Your task to perform on an android device: turn off improve location accuracy Image 0: 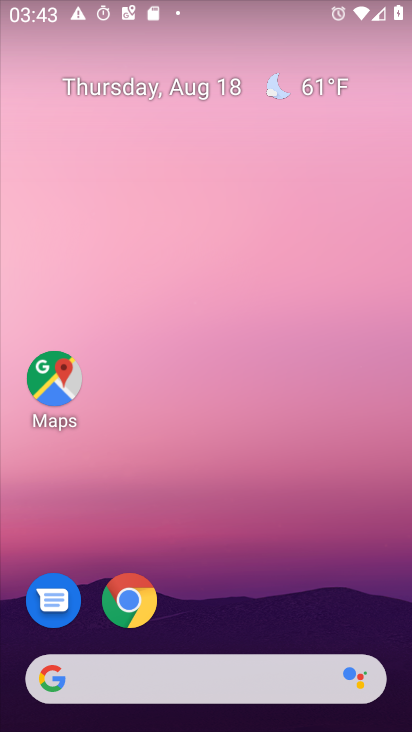
Step 0: press home button
Your task to perform on an android device: turn off improve location accuracy Image 1: 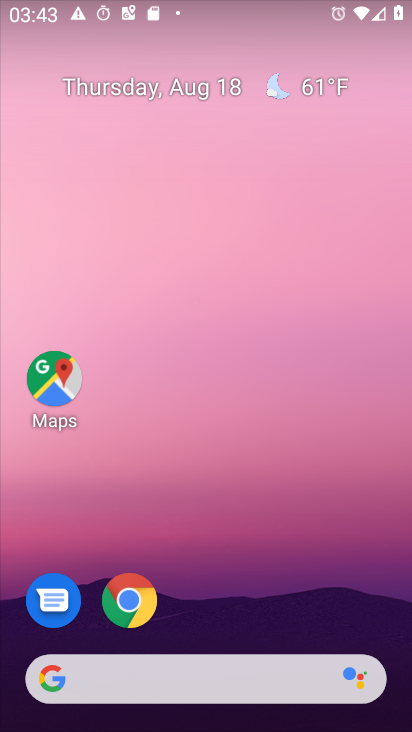
Step 1: click (361, 287)
Your task to perform on an android device: turn off improve location accuracy Image 2: 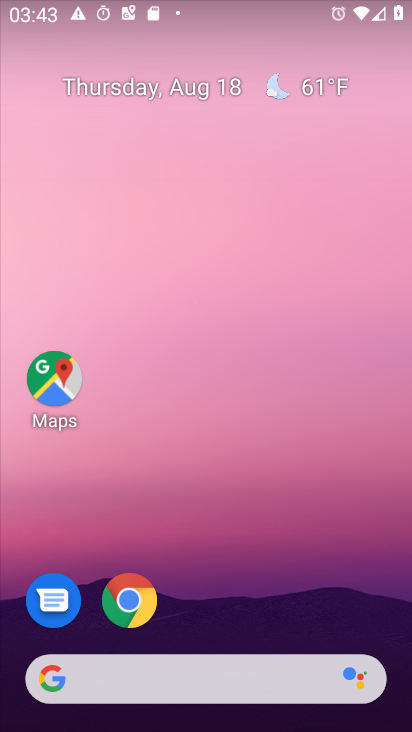
Step 2: drag from (212, 614) to (103, 2)
Your task to perform on an android device: turn off improve location accuracy Image 3: 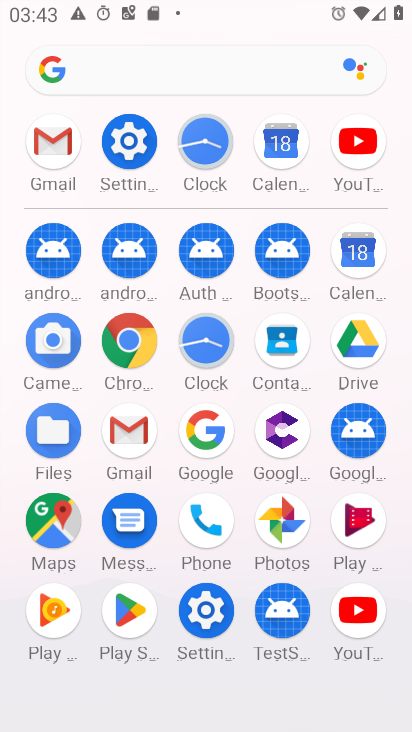
Step 3: click (128, 175)
Your task to perform on an android device: turn off improve location accuracy Image 4: 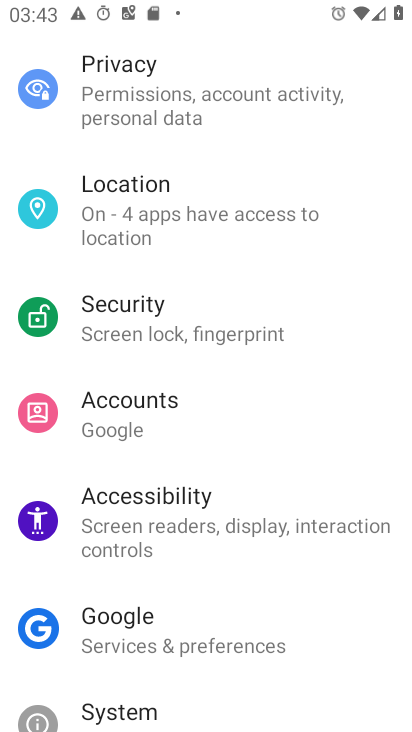
Step 4: click (136, 216)
Your task to perform on an android device: turn off improve location accuracy Image 5: 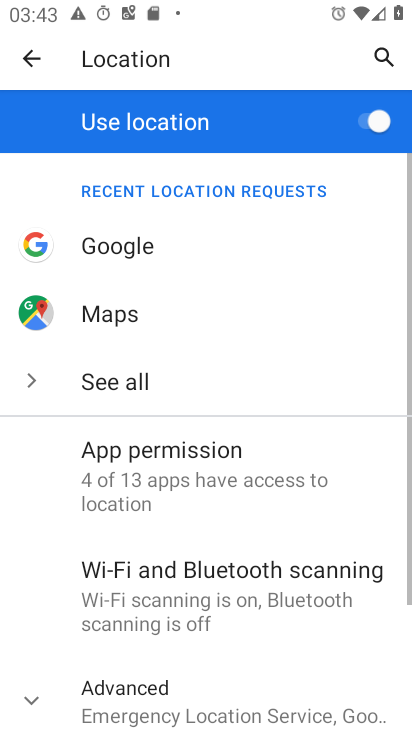
Step 5: click (83, 683)
Your task to perform on an android device: turn off improve location accuracy Image 6: 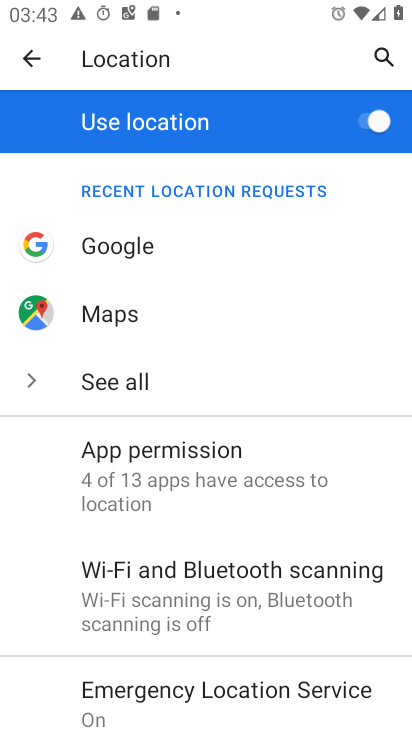
Step 6: drag from (277, 672) to (401, 63)
Your task to perform on an android device: turn off improve location accuracy Image 7: 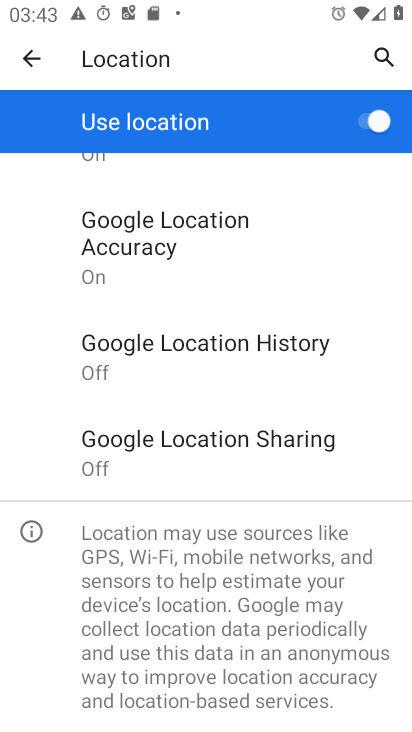
Step 7: click (160, 233)
Your task to perform on an android device: turn off improve location accuracy Image 8: 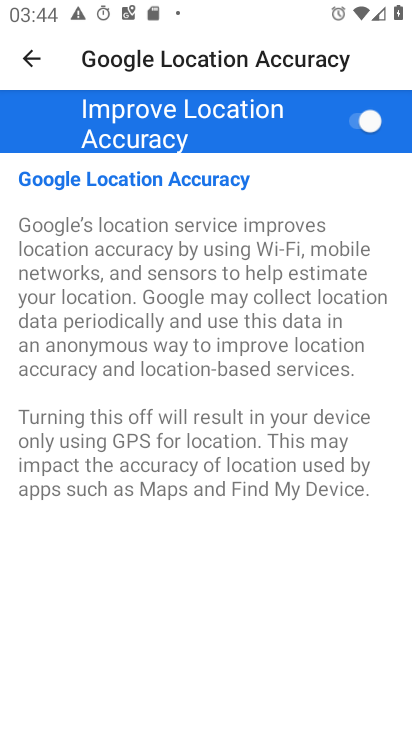
Step 8: click (370, 130)
Your task to perform on an android device: turn off improve location accuracy Image 9: 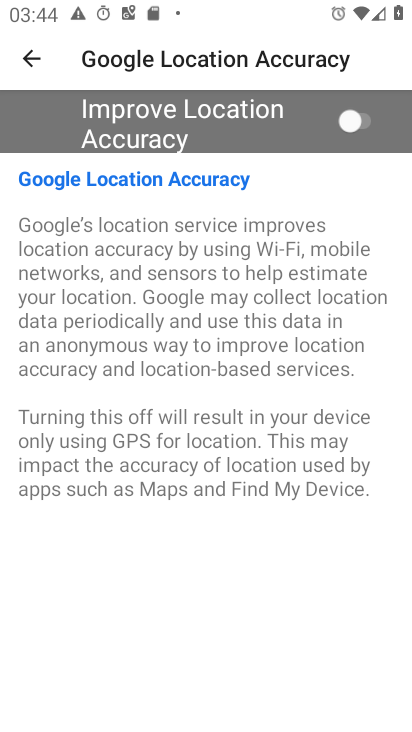
Step 9: task complete